Your task to perform on an android device: Go to Yahoo.com Image 0: 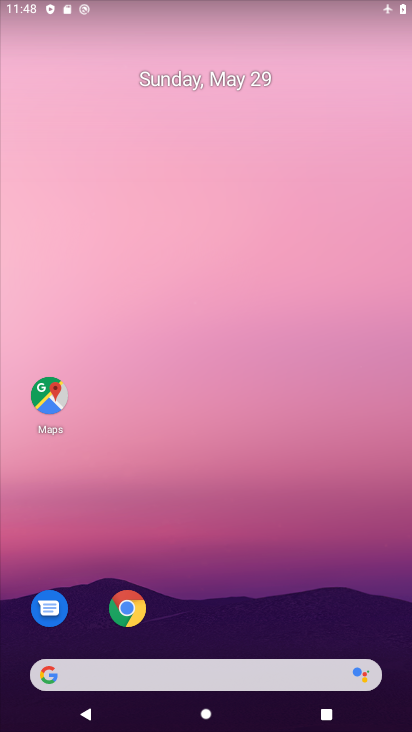
Step 0: click (122, 613)
Your task to perform on an android device: Go to Yahoo.com Image 1: 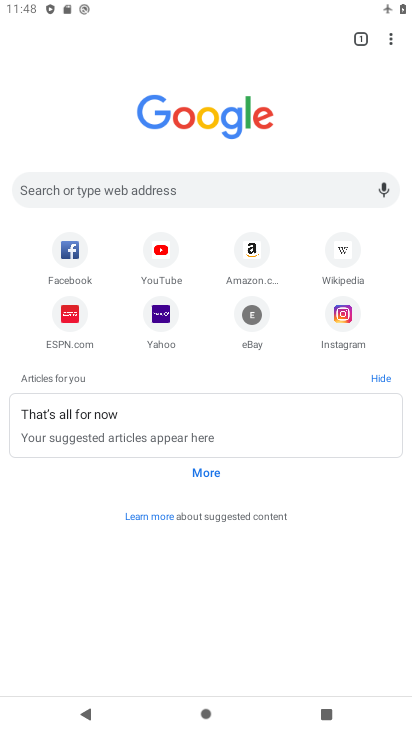
Step 1: click (153, 314)
Your task to perform on an android device: Go to Yahoo.com Image 2: 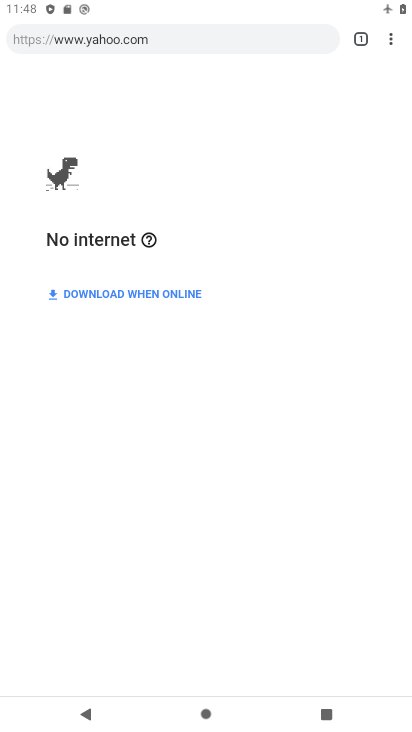
Step 2: task complete